Your task to perform on an android device: Open Yahoo.com Image 0: 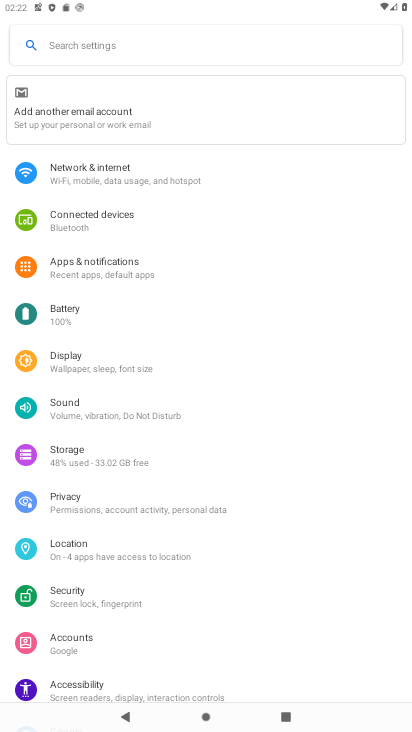
Step 0: press home button
Your task to perform on an android device: Open Yahoo.com Image 1: 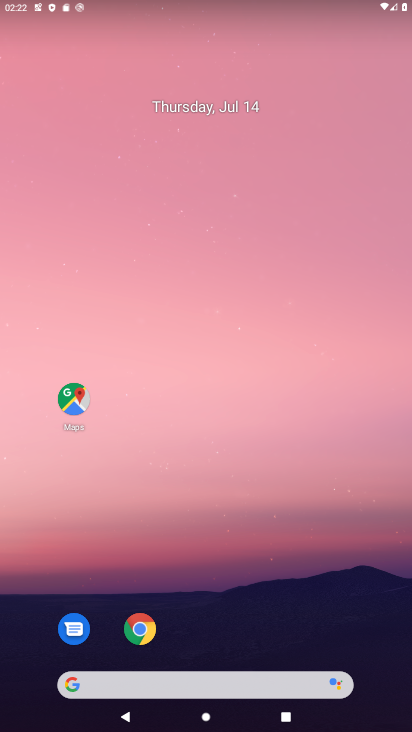
Step 1: click (142, 641)
Your task to perform on an android device: Open Yahoo.com Image 2: 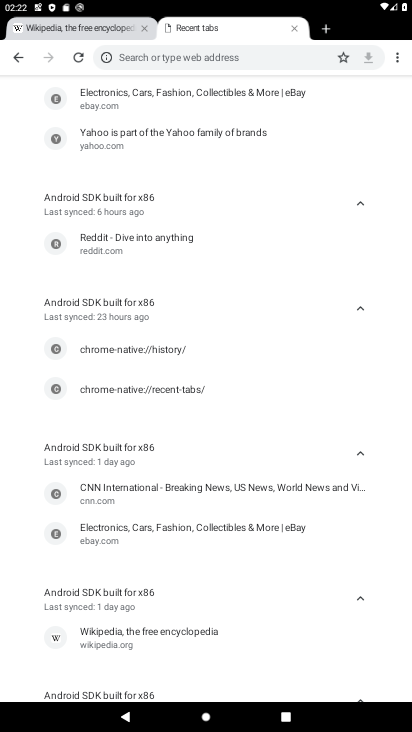
Step 2: click (296, 22)
Your task to perform on an android device: Open Yahoo.com Image 3: 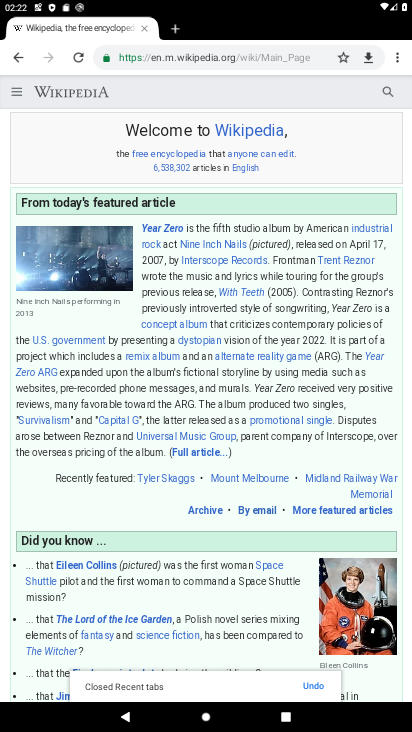
Step 3: click (180, 33)
Your task to perform on an android device: Open Yahoo.com Image 4: 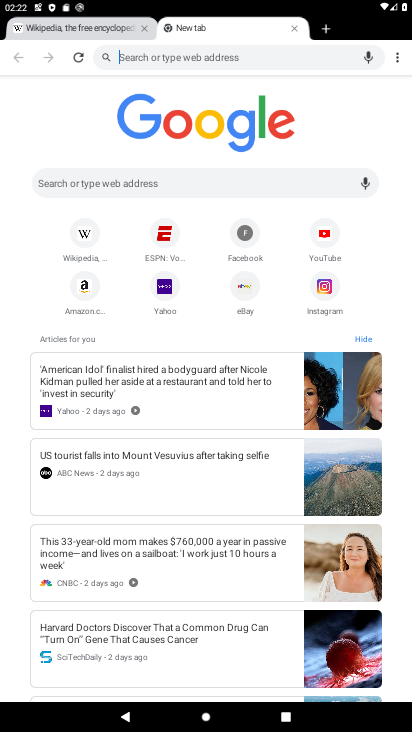
Step 4: click (163, 295)
Your task to perform on an android device: Open Yahoo.com Image 5: 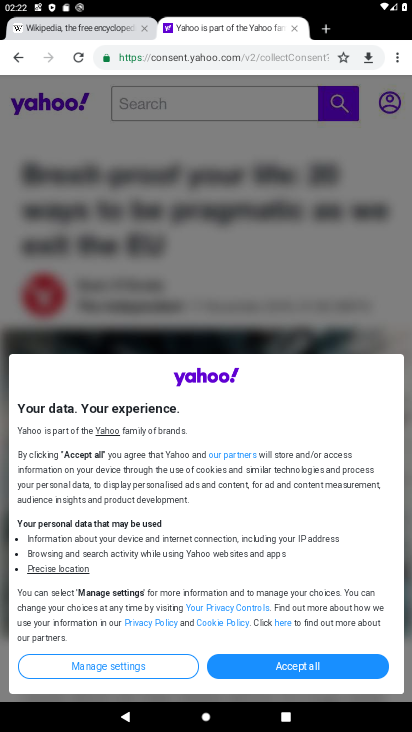
Step 5: task complete